Your task to perform on an android device: Set the phone to "Do not disturb". Image 0: 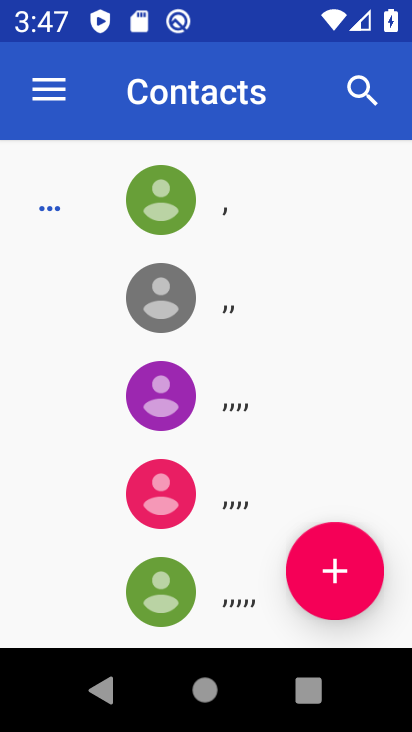
Step 0: press home button
Your task to perform on an android device: Set the phone to "Do not disturb". Image 1: 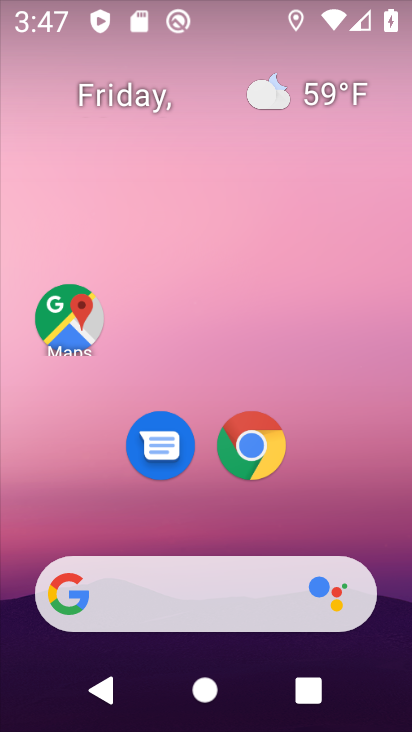
Step 1: drag from (384, 596) to (331, 89)
Your task to perform on an android device: Set the phone to "Do not disturb". Image 2: 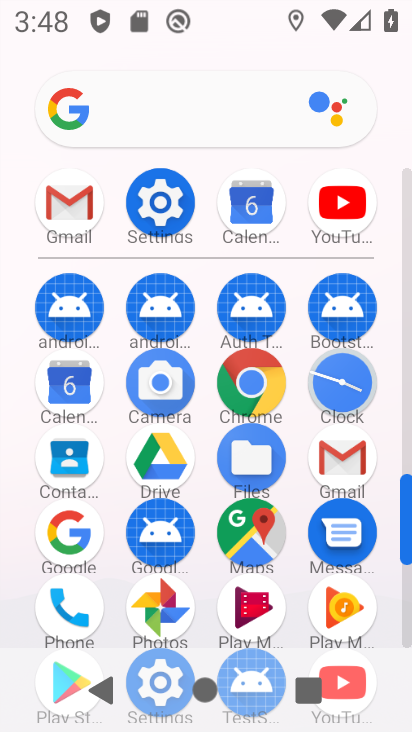
Step 2: click (405, 630)
Your task to perform on an android device: Set the phone to "Do not disturb". Image 3: 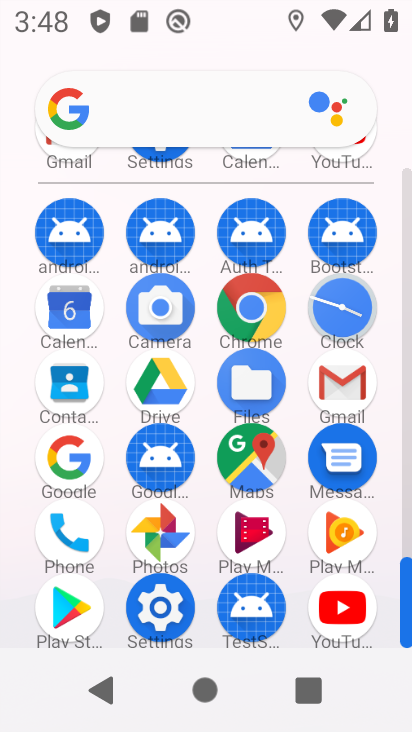
Step 3: click (156, 607)
Your task to perform on an android device: Set the phone to "Do not disturb". Image 4: 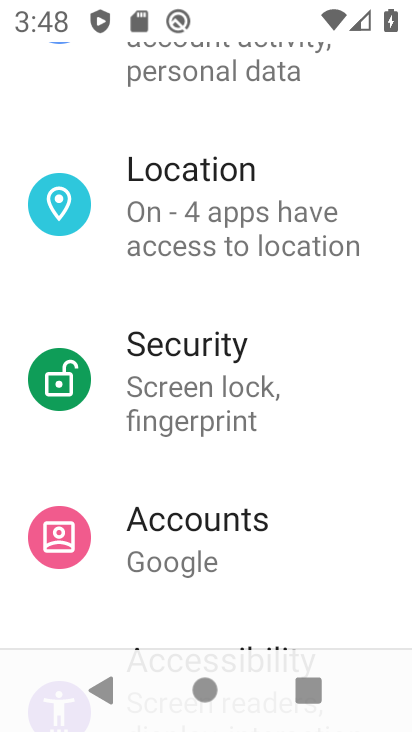
Step 4: drag from (327, 299) to (288, 503)
Your task to perform on an android device: Set the phone to "Do not disturb". Image 5: 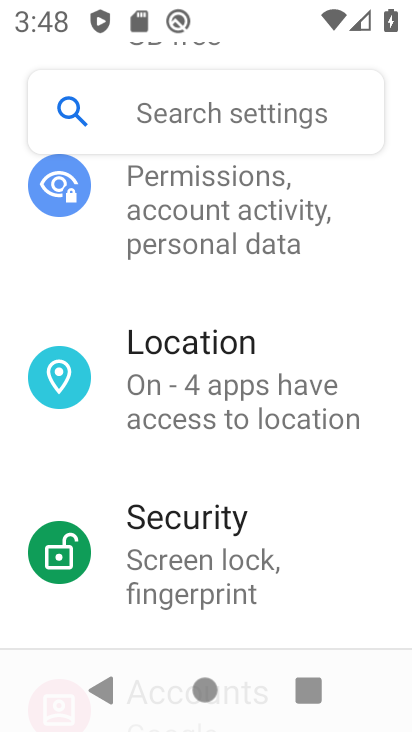
Step 5: drag from (306, 195) to (281, 459)
Your task to perform on an android device: Set the phone to "Do not disturb". Image 6: 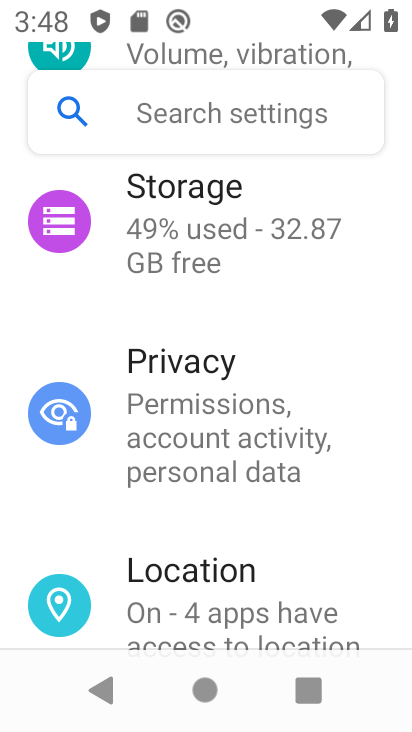
Step 6: drag from (313, 267) to (292, 471)
Your task to perform on an android device: Set the phone to "Do not disturb". Image 7: 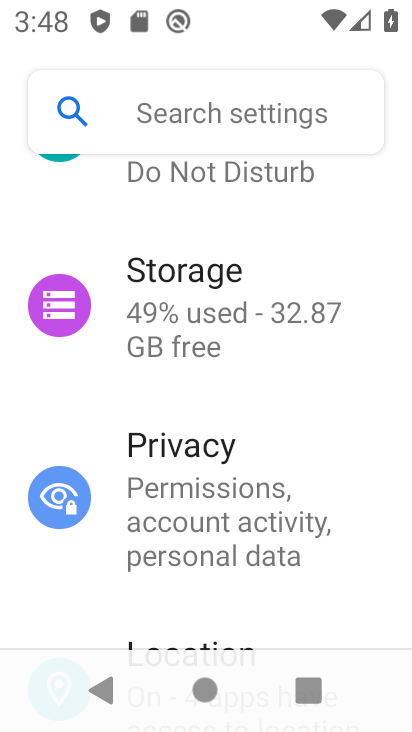
Step 7: drag from (296, 238) to (289, 463)
Your task to perform on an android device: Set the phone to "Do not disturb". Image 8: 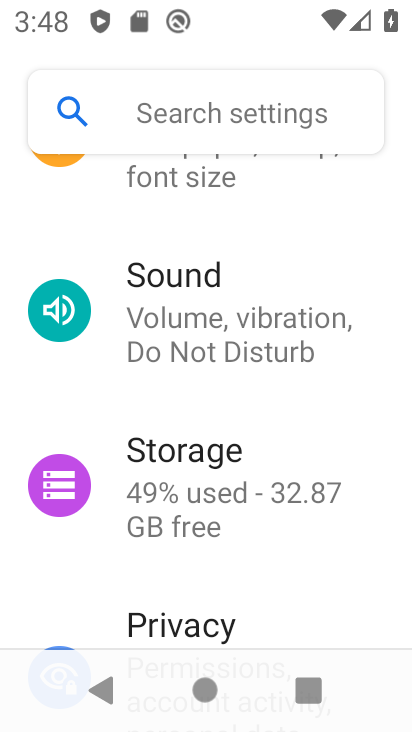
Step 8: click (188, 303)
Your task to perform on an android device: Set the phone to "Do not disturb". Image 9: 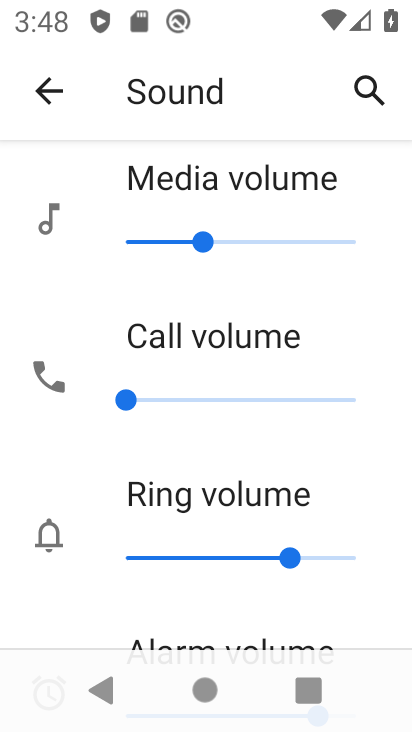
Step 9: drag from (317, 503) to (321, 166)
Your task to perform on an android device: Set the phone to "Do not disturb". Image 10: 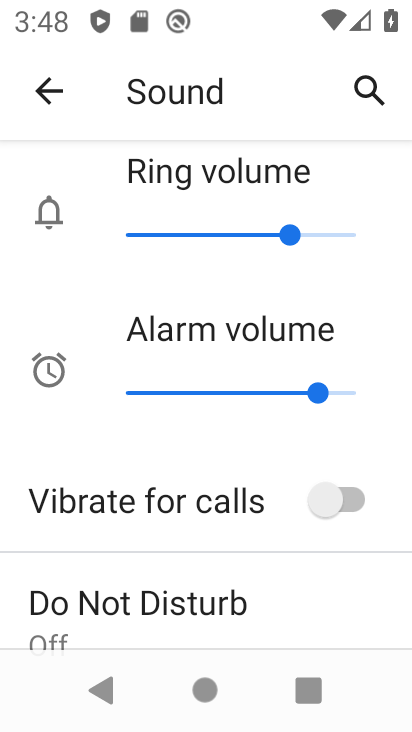
Step 10: drag from (274, 567) to (310, 263)
Your task to perform on an android device: Set the phone to "Do not disturb". Image 11: 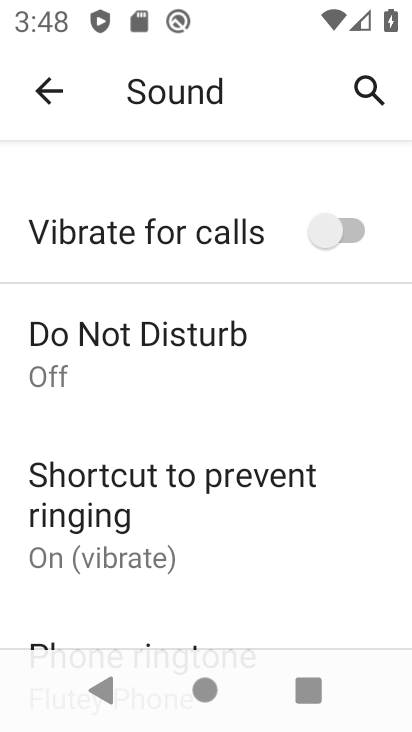
Step 11: click (111, 352)
Your task to perform on an android device: Set the phone to "Do not disturb". Image 12: 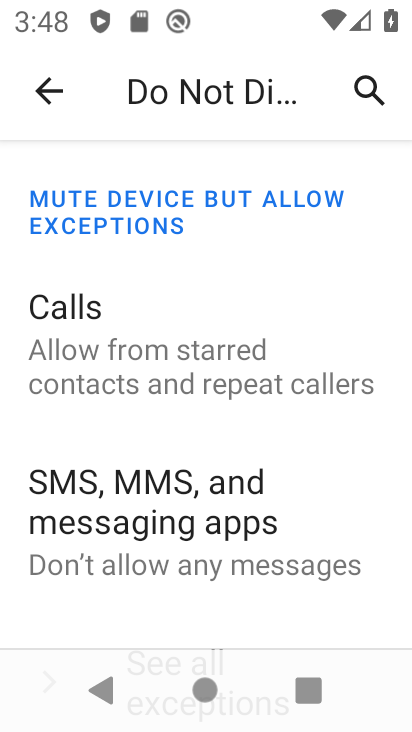
Step 12: drag from (211, 553) to (281, 172)
Your task to perform on an android device: Set the phone to "Do not disturb". Image 13: 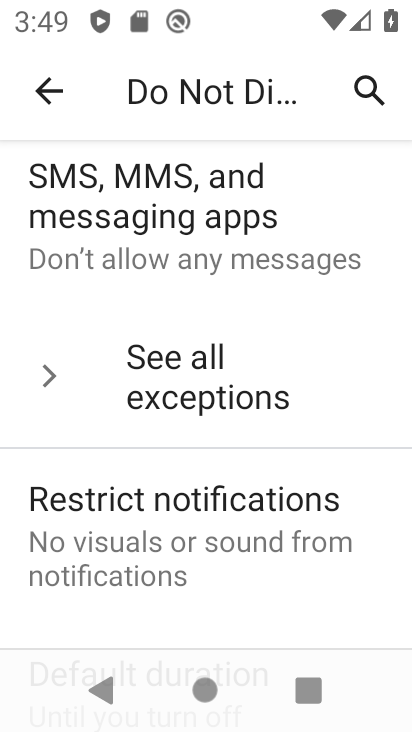
Step 13: drag from (165, 581) to (266, 200)
Your task to perform on an android device: Set the phone to "Do not disturb". Image 14: 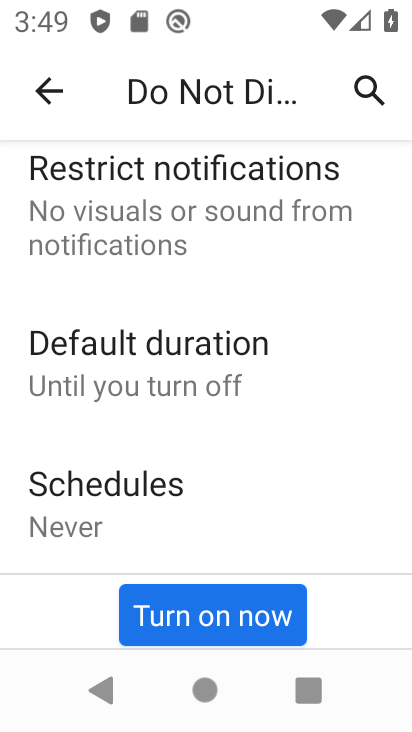
Step 14: click (181, 626)
Your task to perform on an android device: Set the phone to "Do not disturb". Image 15: 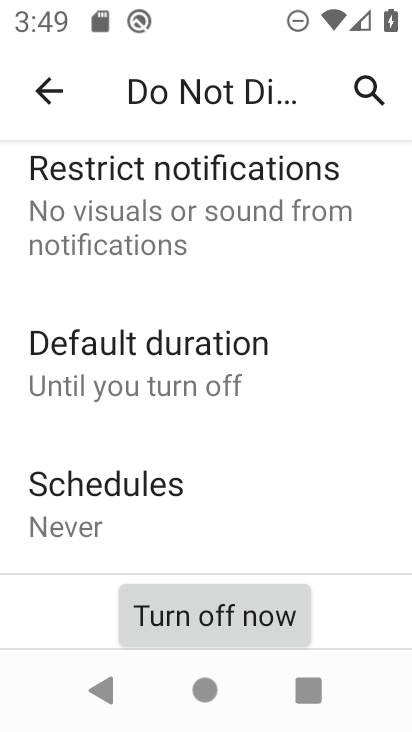
Step 15: task complete